Your task to perform on an android device: Empty the shopping cart on walmart.com. Add "apple airpods pro" to the cart on walmart.com, then select checkout. Image 0: 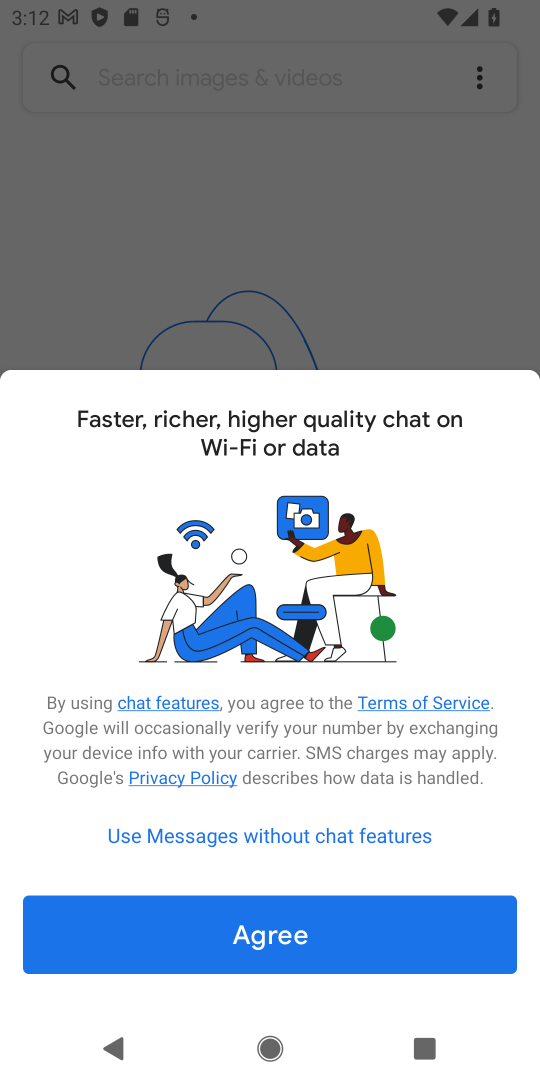
Step 0: press home button
Your task to perform on an android device: Empty the shopping cart on walmart.com. Add "apple airpods pro" to the cart on walmart.com, then select checkout. Image 1: 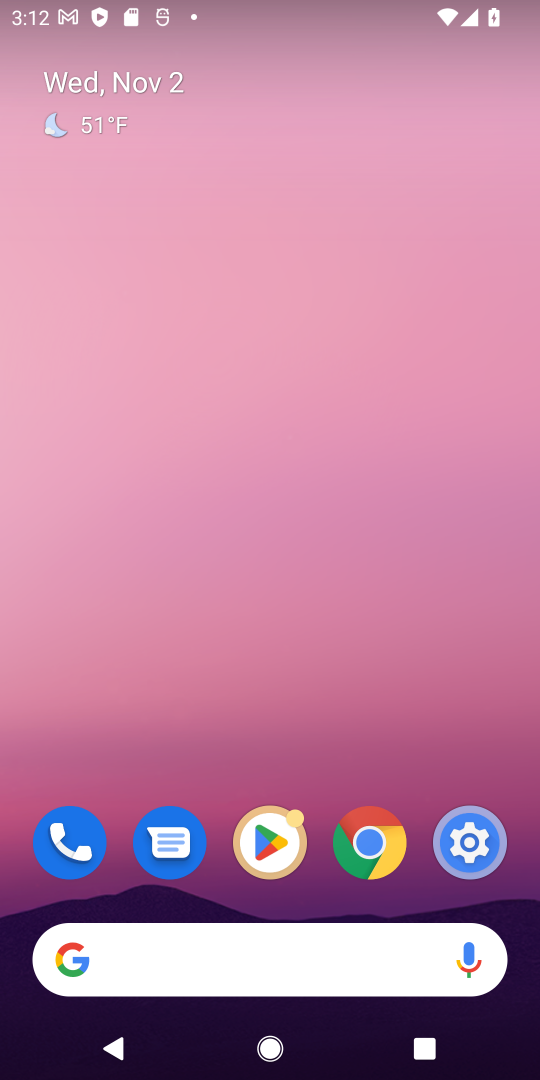
Step 1: click (272, 963)
Your task to perform on an android device: Empty the shopping cart on walmart.com. Add "apple airpods pro" to the cart on walmart.com, then select checkout. Image 2: 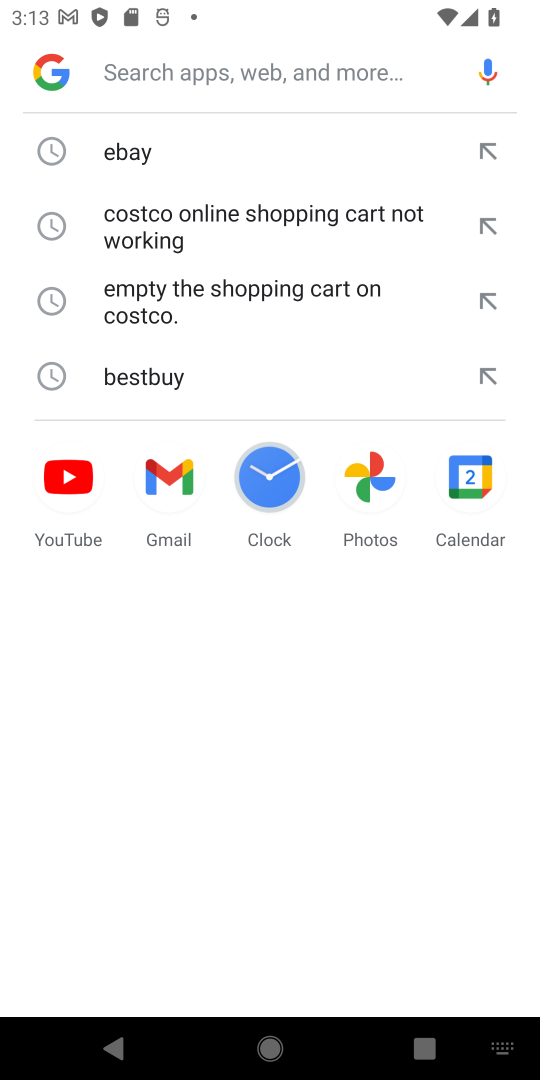
Step 2: type "walmart"
Your task to perform on an android device: Empty the shopping cart on walmart.com. Add "apple airpods pro" to the cart on walmart.com, then select checkout. Image 3: 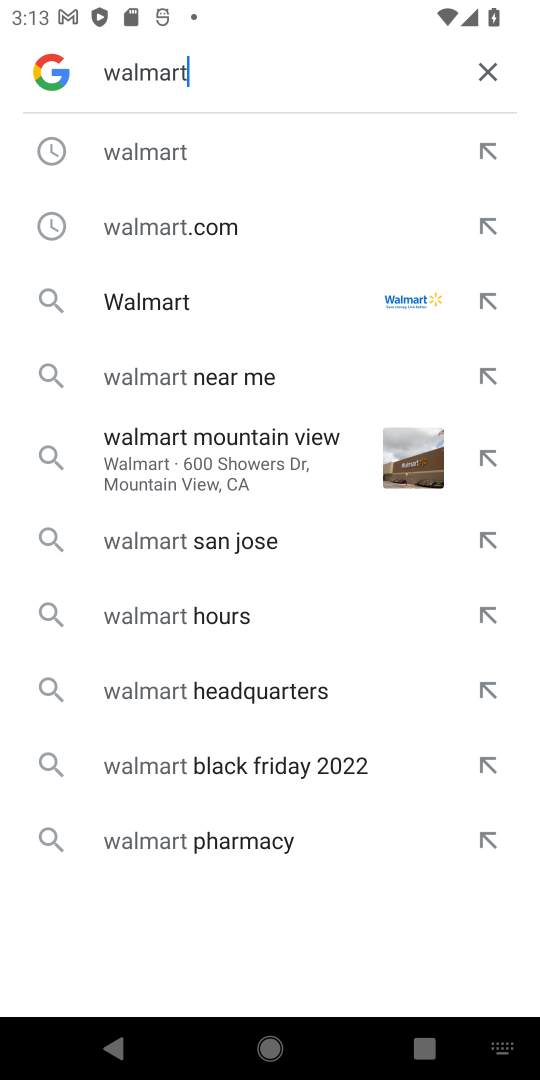
Step 3: click (175, 227)
Your task to perform on an android device: Empty the shopping cart on walmart.com. Add "apple airpods pro" to the cart on walmart.com, then select checkout. Image 4: 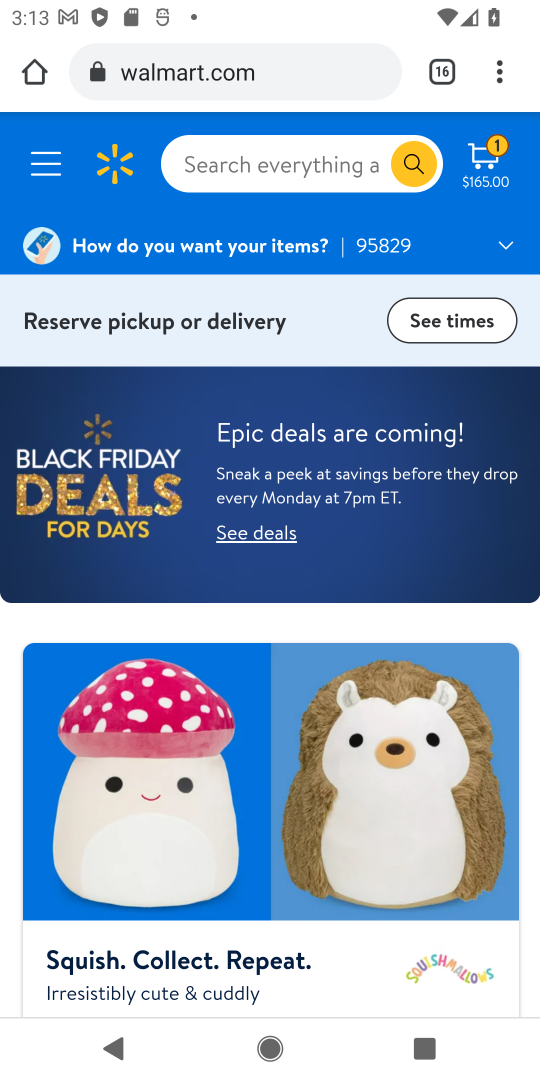
Step 4: click (248, 159)
Your task to perform on an android device: Empty the shopping cart on walmart.com. Add "apple airpods pro" to the cart on walmart.com, then select checkout. Image 5: 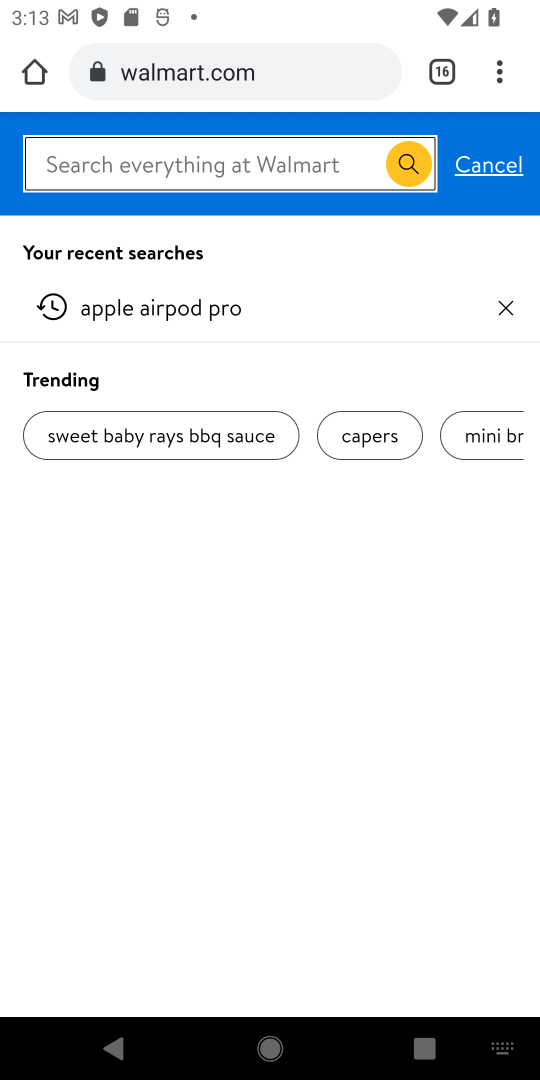
Step 5: type "apple airpods pro"
Your task to perform on an android device: Empty the shopping cart on walmart.com. Add "apple airpods pro" to the cart on walmart.com, then select checkout. Image 6: 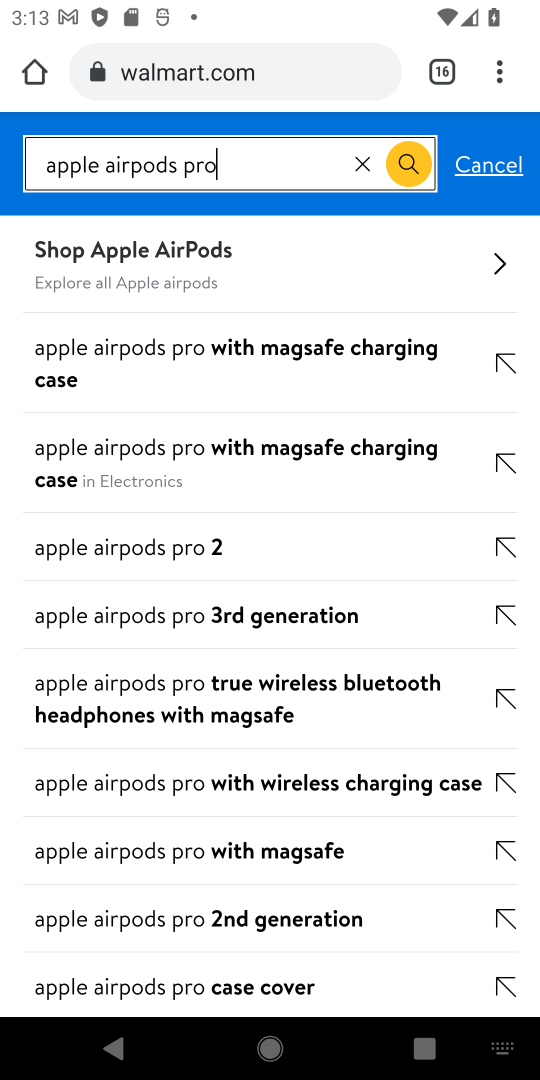
Step 6: click (175, 250)
Your task to perform on an android device: Empty the shopping cart on walmart.com. Add "apple airpods pro" to the cart on walmart.com, then select checkout. Image 7: 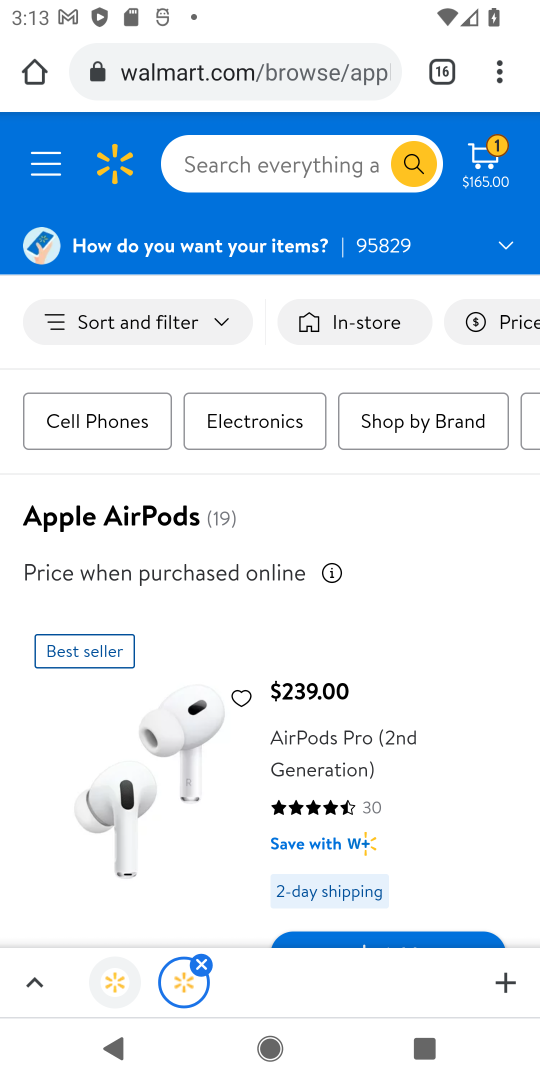
Step 7: drag from (459, 736) to (431, 528)
Your task to perform on an android device: Empty the shopping cart on walmart.com. Add "apple airpods pro" to the cart on walmart.com, then select checkout. Image 8: 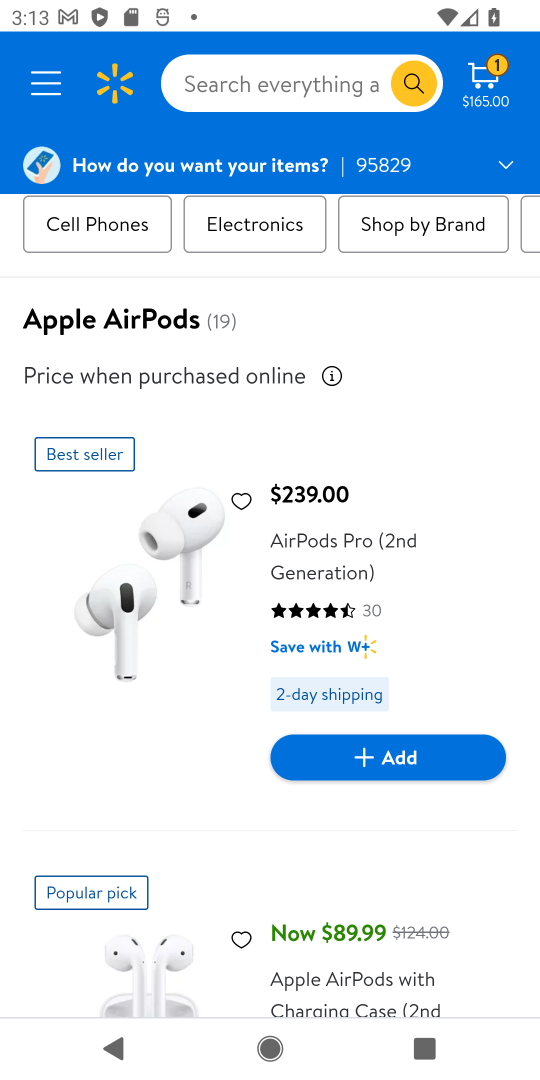
Step 8: drag from (454, 301) to (524, 729)
Your task to perform on an android device: Empty the shopping cart on walmart.com. Add "apple airpods pro" to the cart on walmart.com, then select checkout. Image 9: 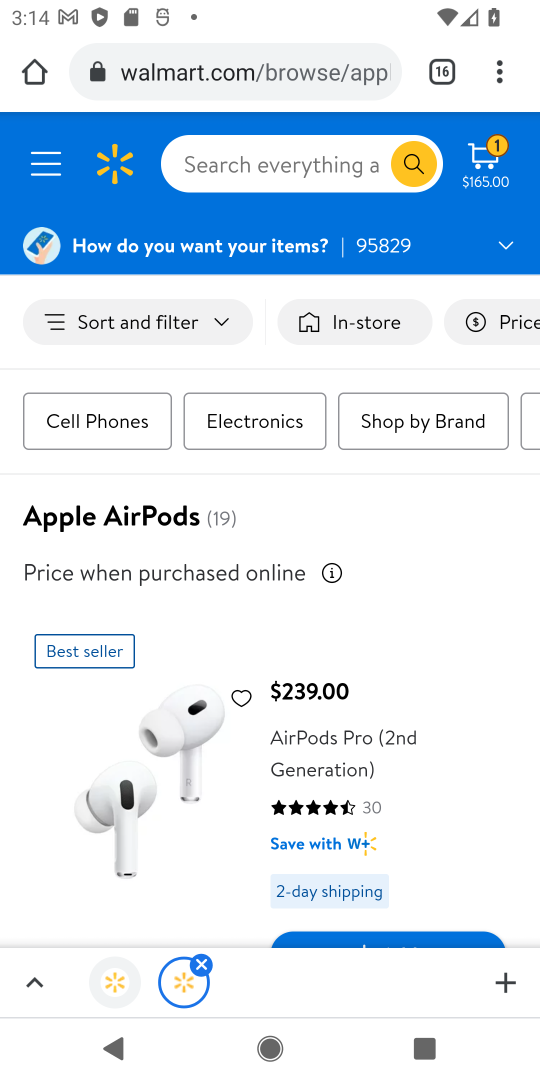
Step 9: click (486, 160)
Your task to perform on an android device: Empty the shopping cart on walmart.com. Add "apple airpods pro" to the cart on walmart.com, then select checkout. Image 10: 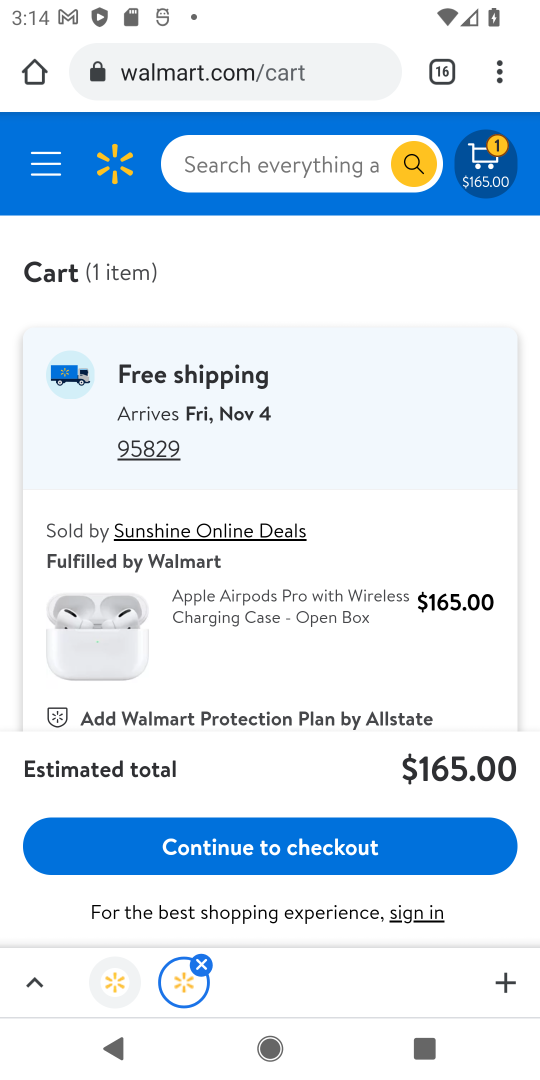
Step 10: drag from (424, 526) to (406, 327)
Your task to perform on an android device: Empty the shopping cart on walmart.com. Add "apple airpods pro" to the cart on walmart.com, then select checkout. Image 11: 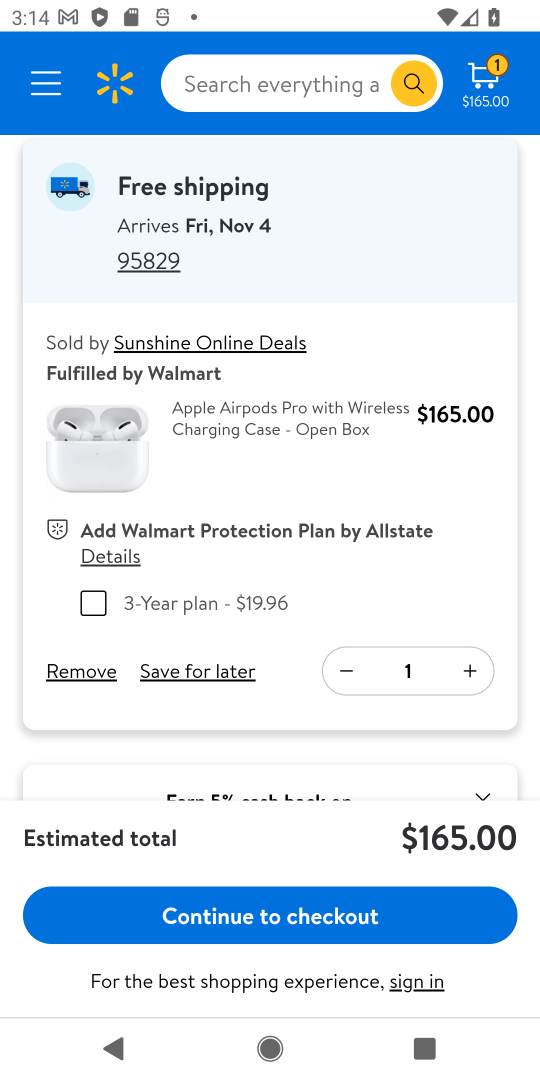
Step 11: click (78, 670)
Your task to perform on an android device: Empty the shopping cart on walmart.com. Add "apple airpods pro" to the cart on walmart.com, then select checkout. Image 12: 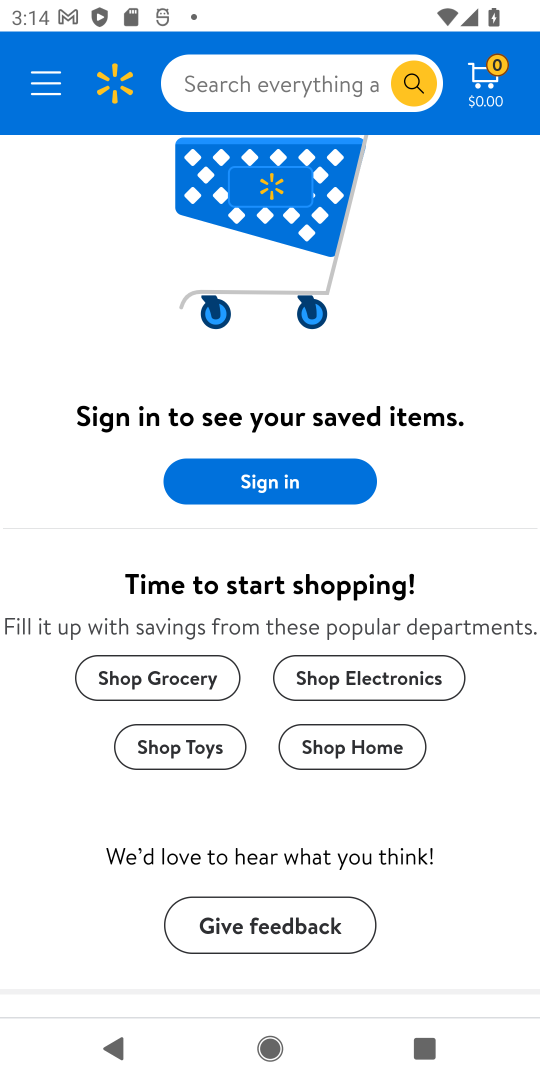
Step 12: click (278, 84)
Your task to perform on an android device: Empty the shopping cart on walmart.com. Add "apple airpods pro" to the cart on walmart.com, then select checkout. Image 13: 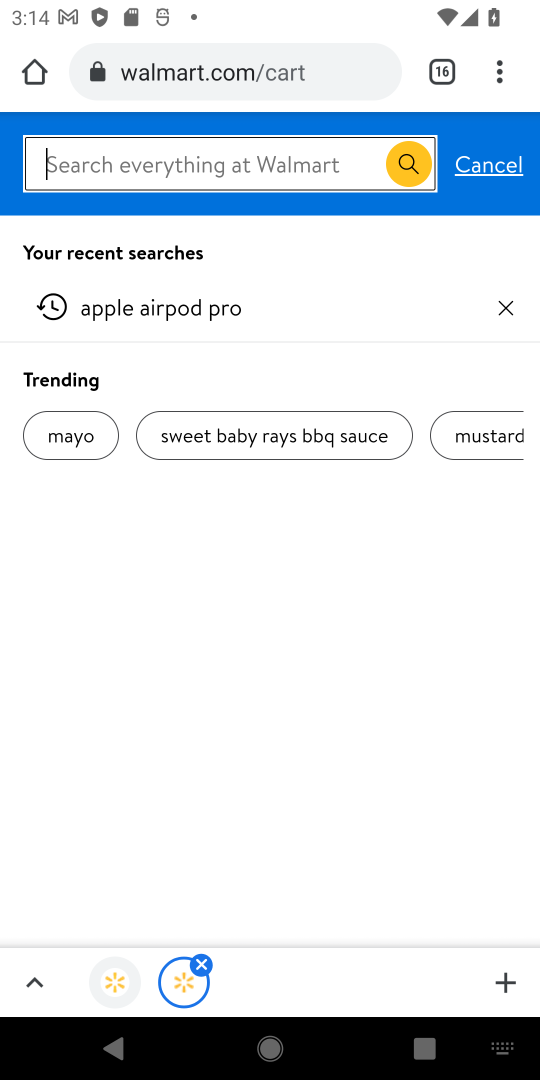
Step 13: click (168, 304)
Your task to perform on an android device: Empty the shopping cart on walmart.com. Add "apple airpods pro" to the cart on walmart.com, then select checkout. Image 14: 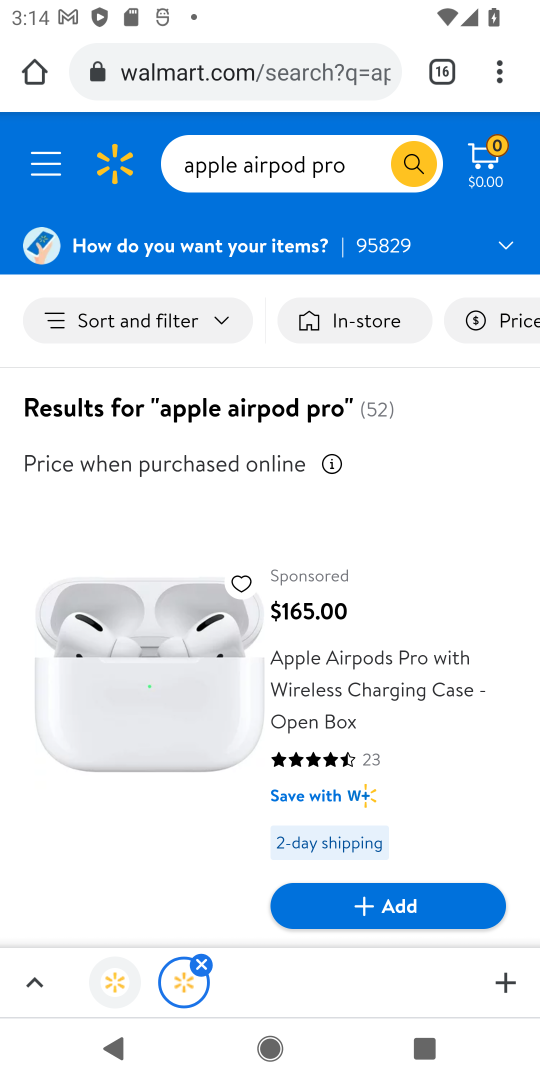
Step 14: click (370, 911)
Your task to perform on an android device: Empty the shopping cart on walmart.com. Add "apple airpods pro" to the cart on walmart.com, then select checkout. Image 15: 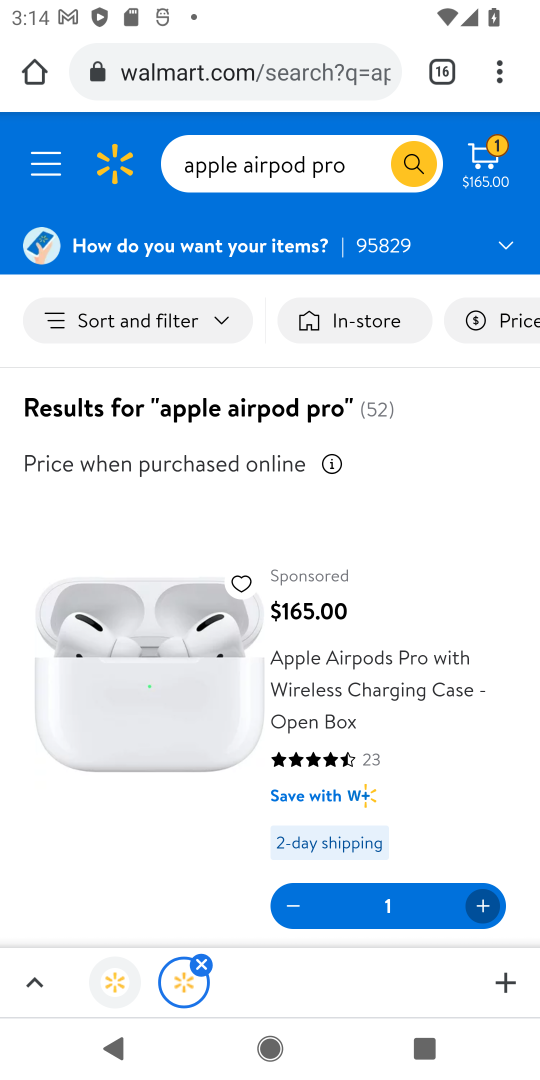
Step 15: click (491, 158)
Your task to perform on an android device: Empty the shopping cart on walmart.com. Add "apple airpods pro" to the cart on walmart.com, then select checkout. Image 16: 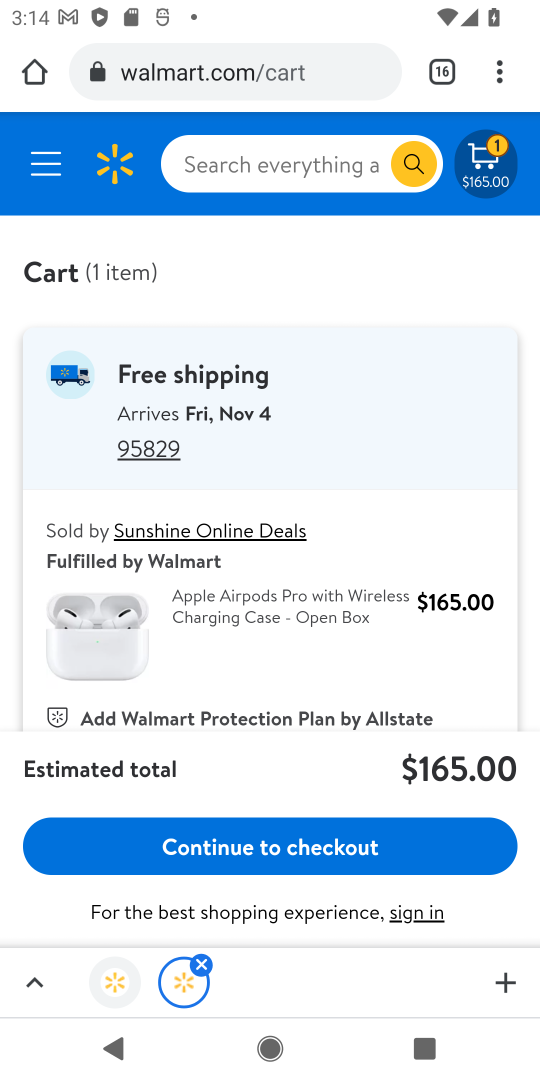
Step 16: click (277, 850)
Your task to perform on an android device: Empty the shopping cart on walmart.com. Add "apple airpods pro" to the cart on walmart.com, then select checkout. Image 17: 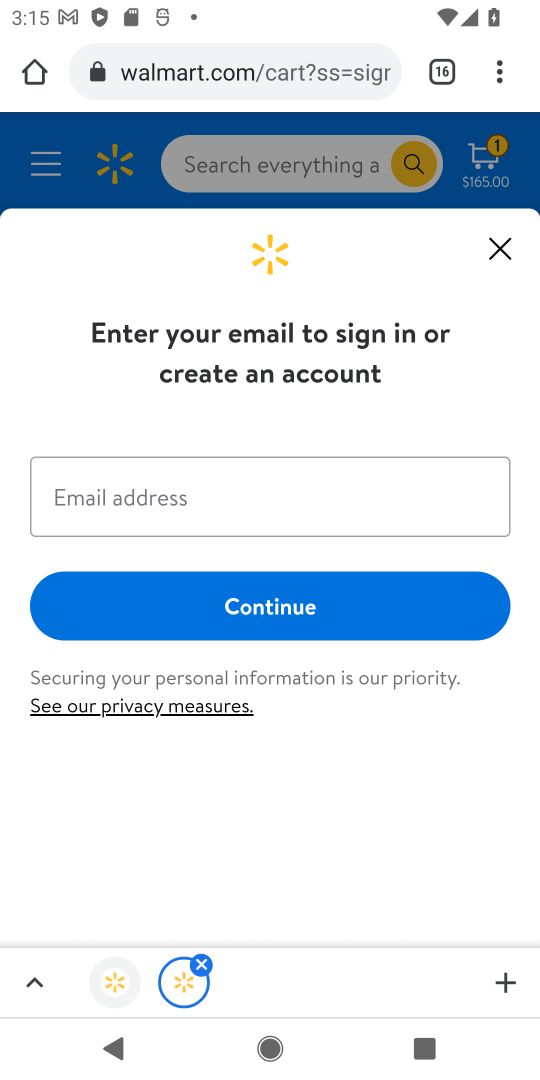
Step 17: task complete